Your task to perform on an android device: Open Google Image 0: 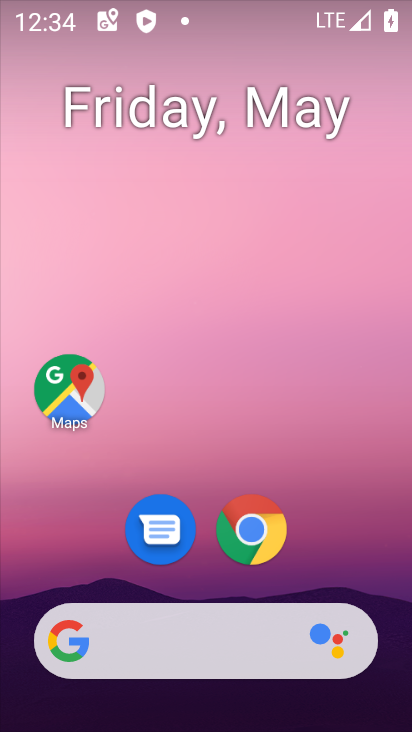
Step 0: drag from (307, 522) to (72, 107)
Your task to perform on an android device: Open Google Image 1: 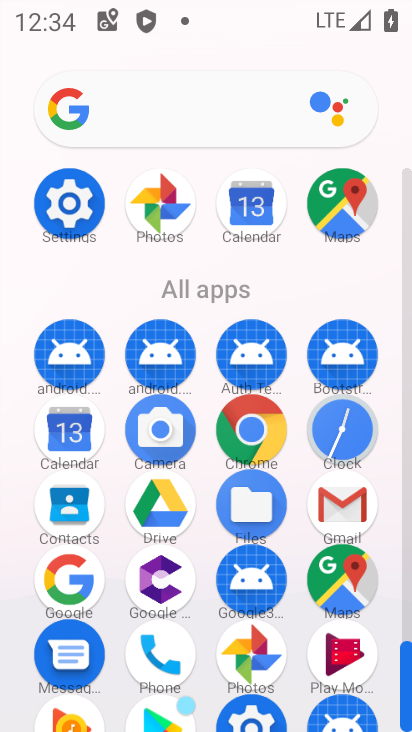
Step 1: click (68, 588)
Your task to perform on an android device: Open Google Image 2: 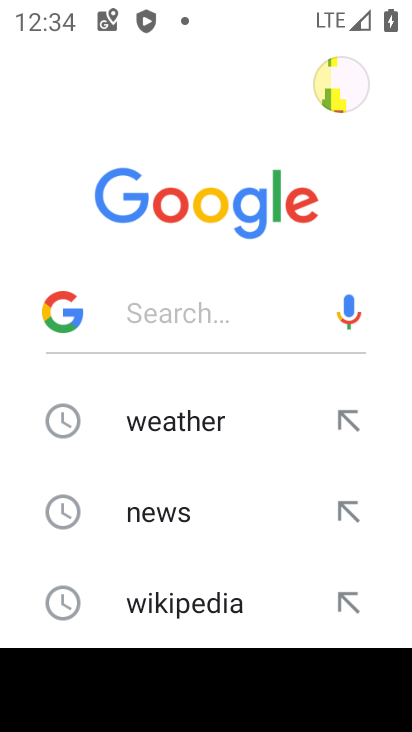
Step 2: task complete